Your task to perform on an android device: turn off smart reply in the gmail app Image 0: 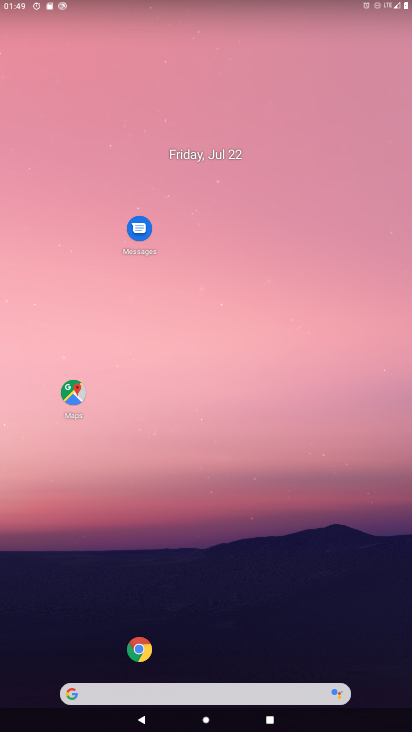
Step 0: drag from (25, 657) to (259, 35)
Your task to perform on an android device: turn off smart reply in the gmail app Image 1: 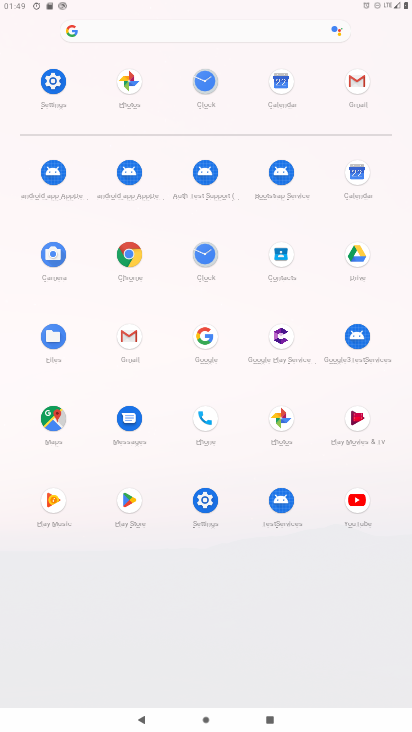
Step 1: click (132, 343)
Your task to perform on an android device: turn off smart reply in the gmail app Image 2: 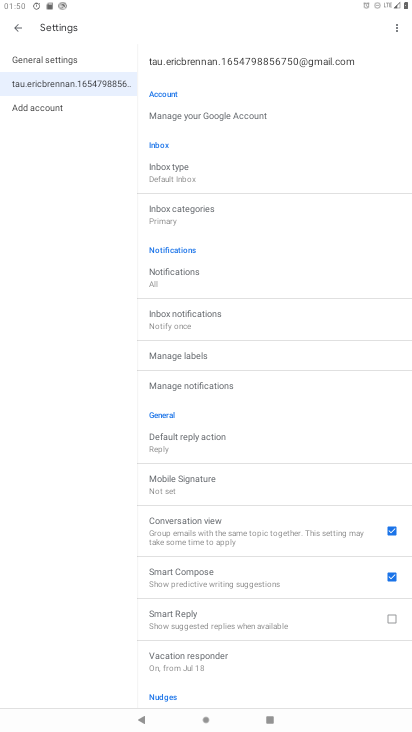
Step 2: task complete